Your task to perform on an android device: manage bookmarks in the chrome app Image 0: 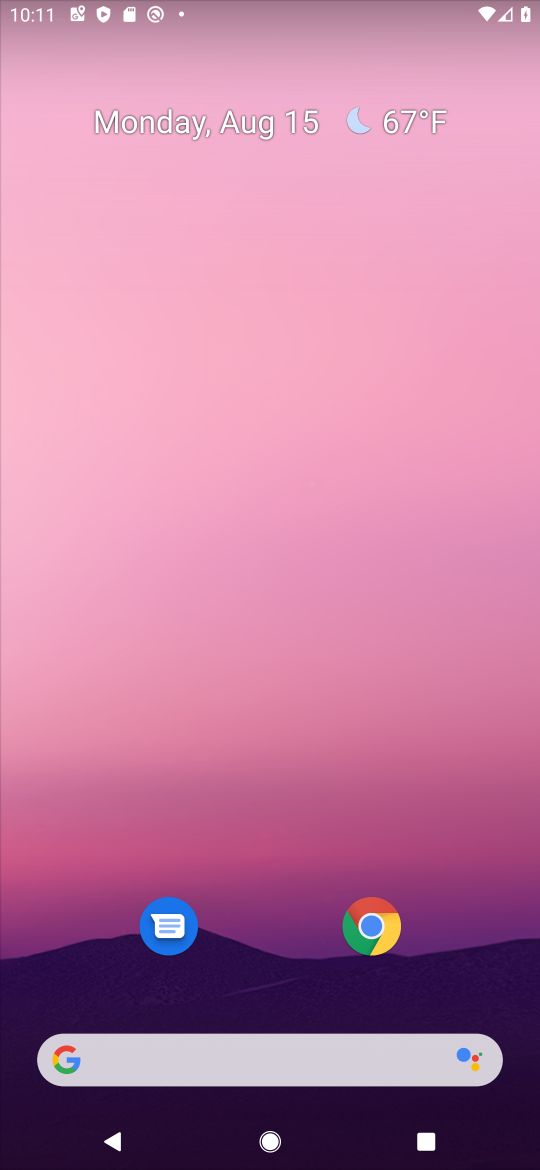
Step 0: press home button
Your task to perform on an android device: manage bookmarks in the chrome app Image 1: 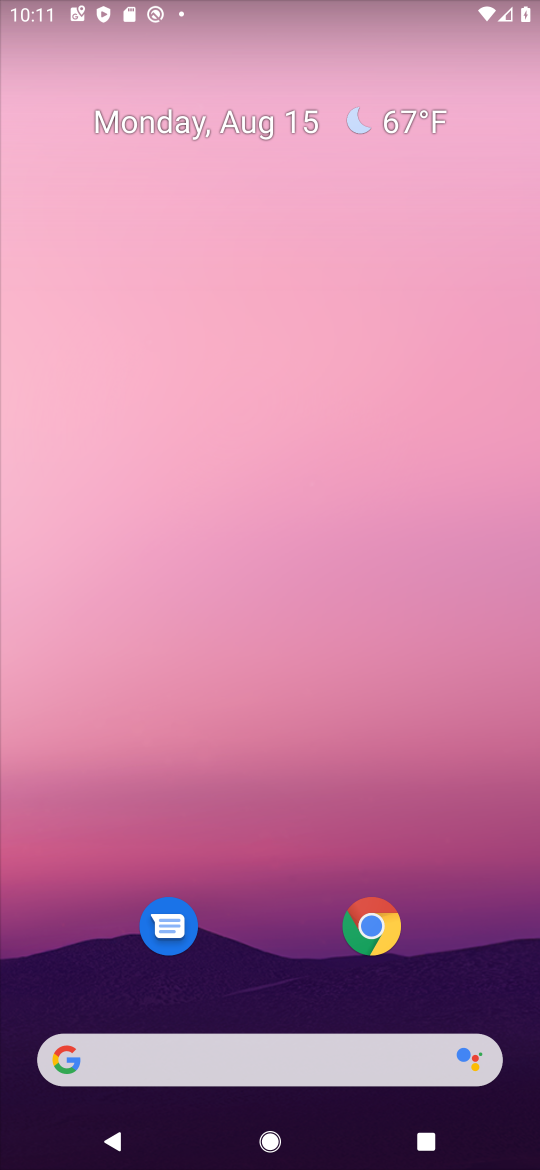
Step 1: drag from (243, 968) to (215, 161)
Your task to perform on an android device: manage bookmarks in the chrome app Image 2: 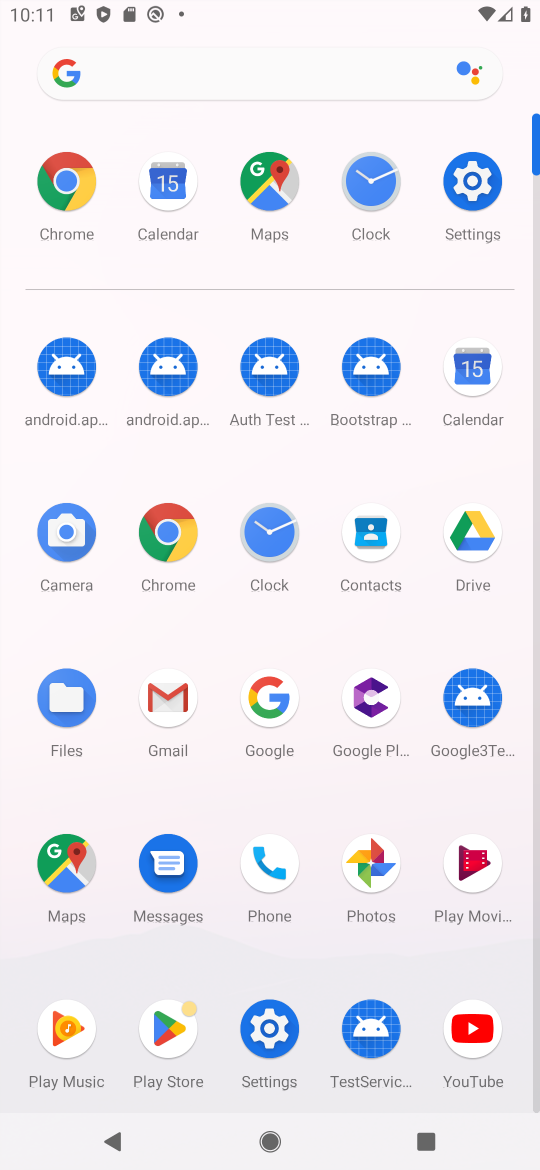
Step 2: click (176, 548)
Your task to perform on an android device: manage bookmarks in the chrome app Image 3: 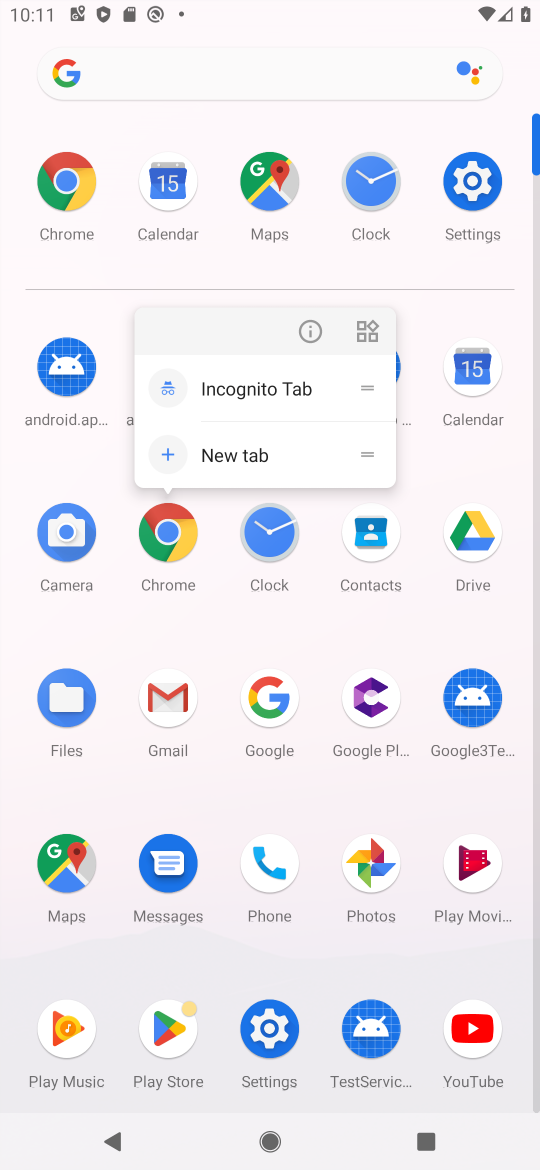
Step 3: click (176, 548)
Your task to perform on an android device: manage bookmarks in the chrome app Image 4: 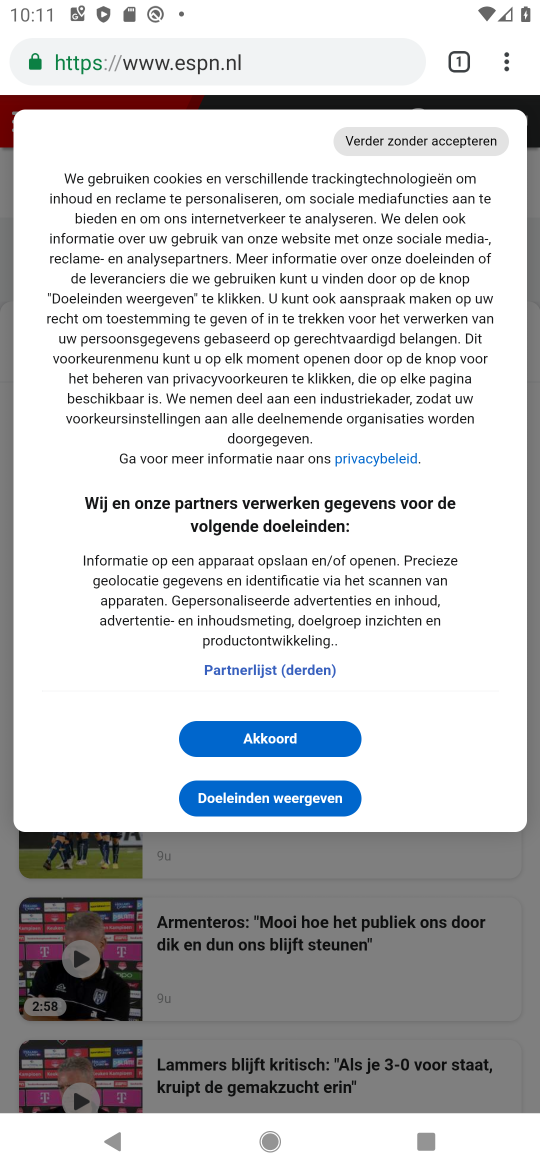
Step 4: task complete